Your task to perform on an android device: turn notification dots on Image 0: 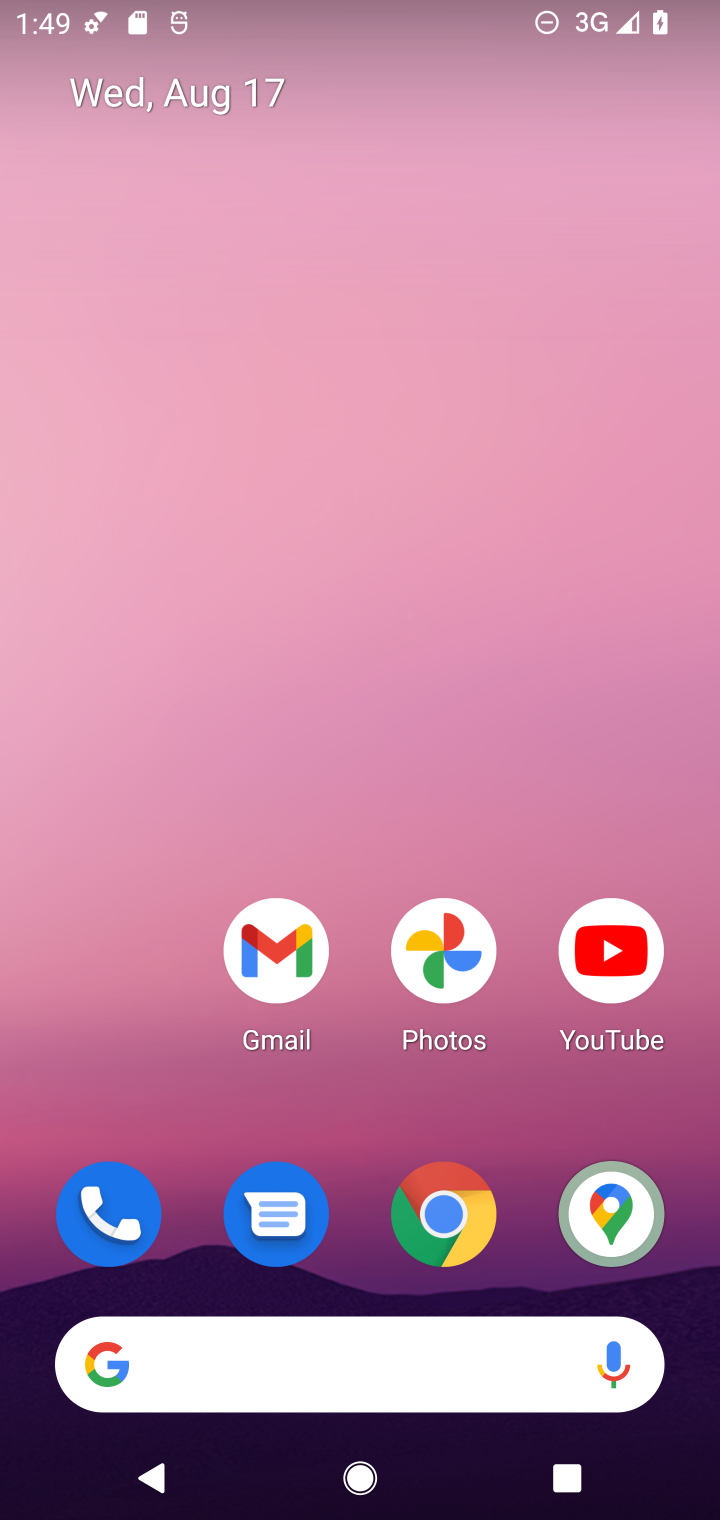
Step 0: drag from (359, 1279) to (312, 270)
Your task to perform on an android device: turn notification dots on Image 1: 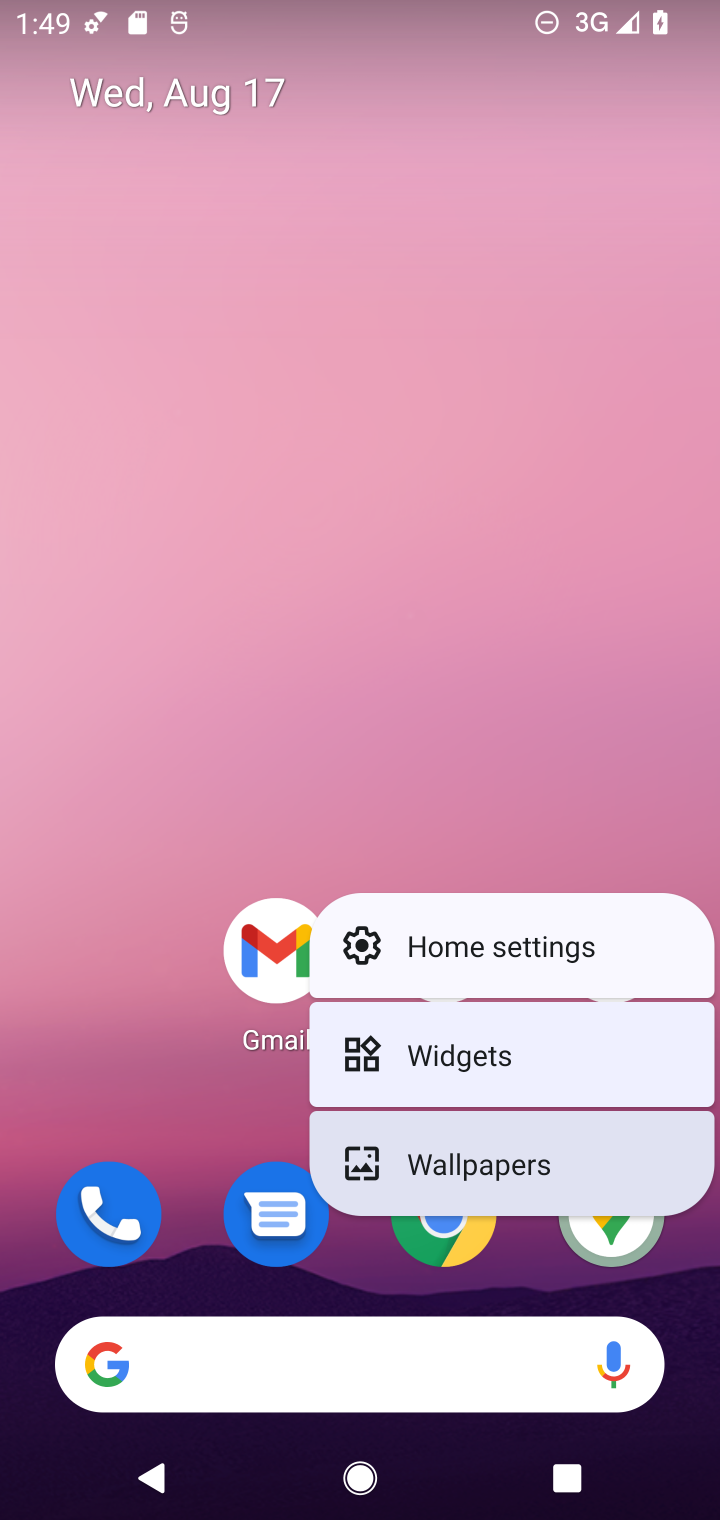
Step 1: click (384, 576)
Your task to perform on an android device: turn notification dots on Image 2: 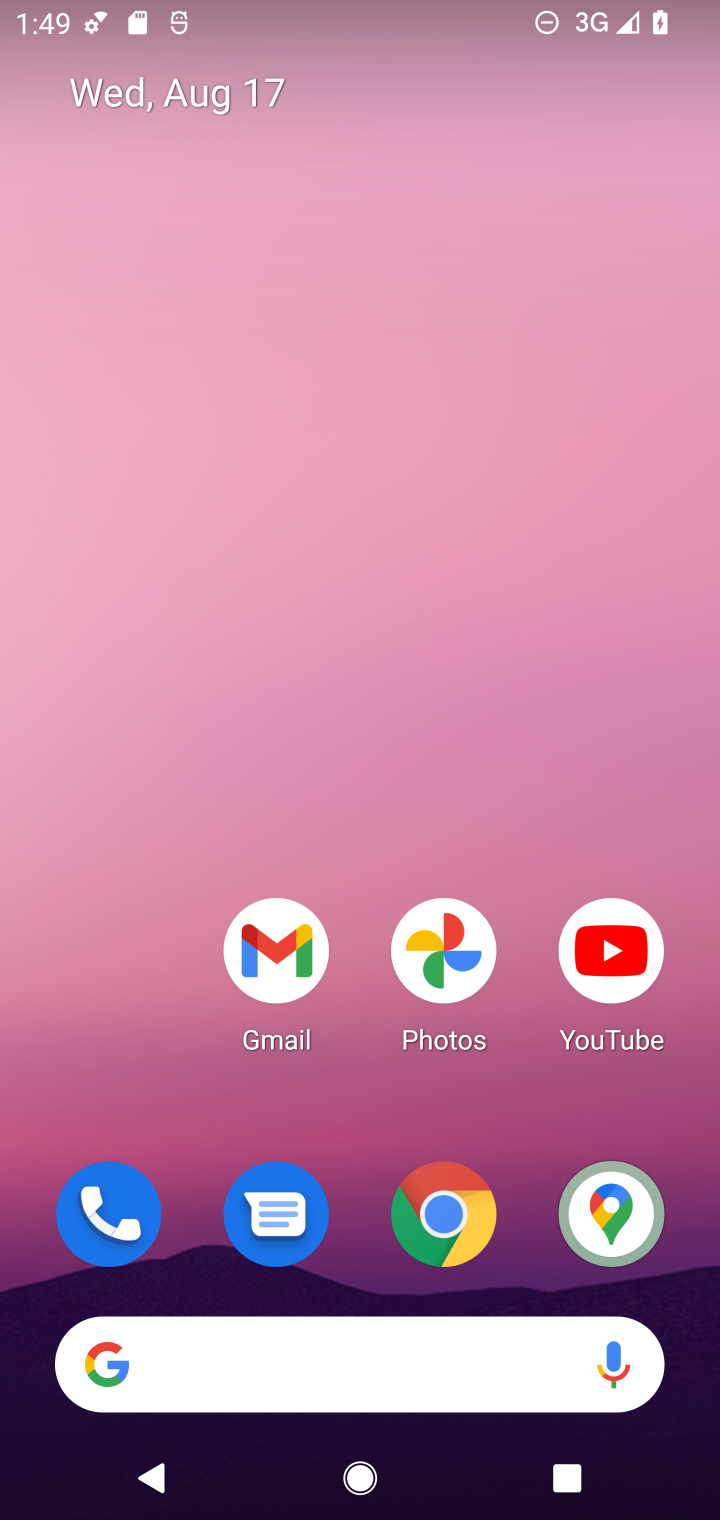
Step 2: drag from (360, 1152) to (235, 40)
Your task to perform on an android device: turn notification dots on Image 3: 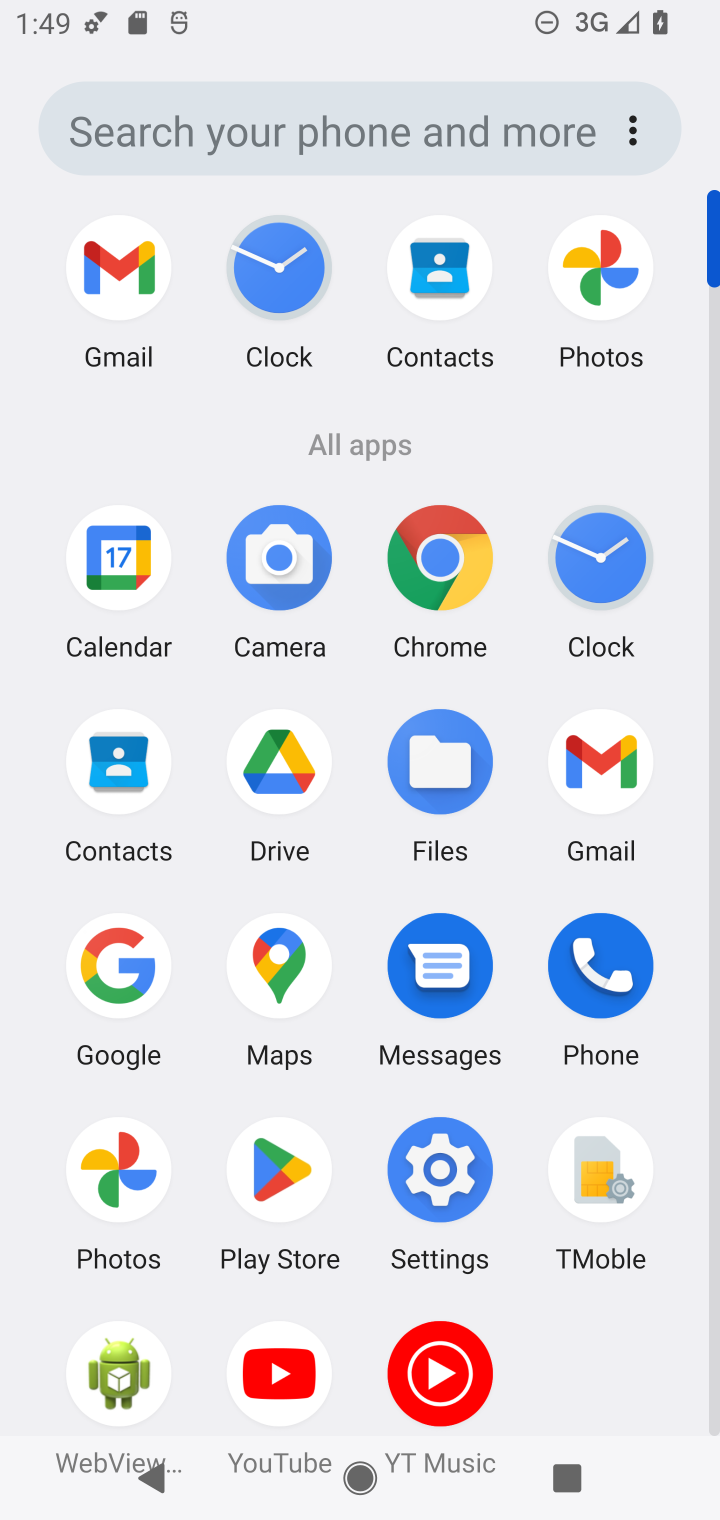
Step 3: click (444, 1176)
Your task to perform on an android device: turn notification dots on Image 4: 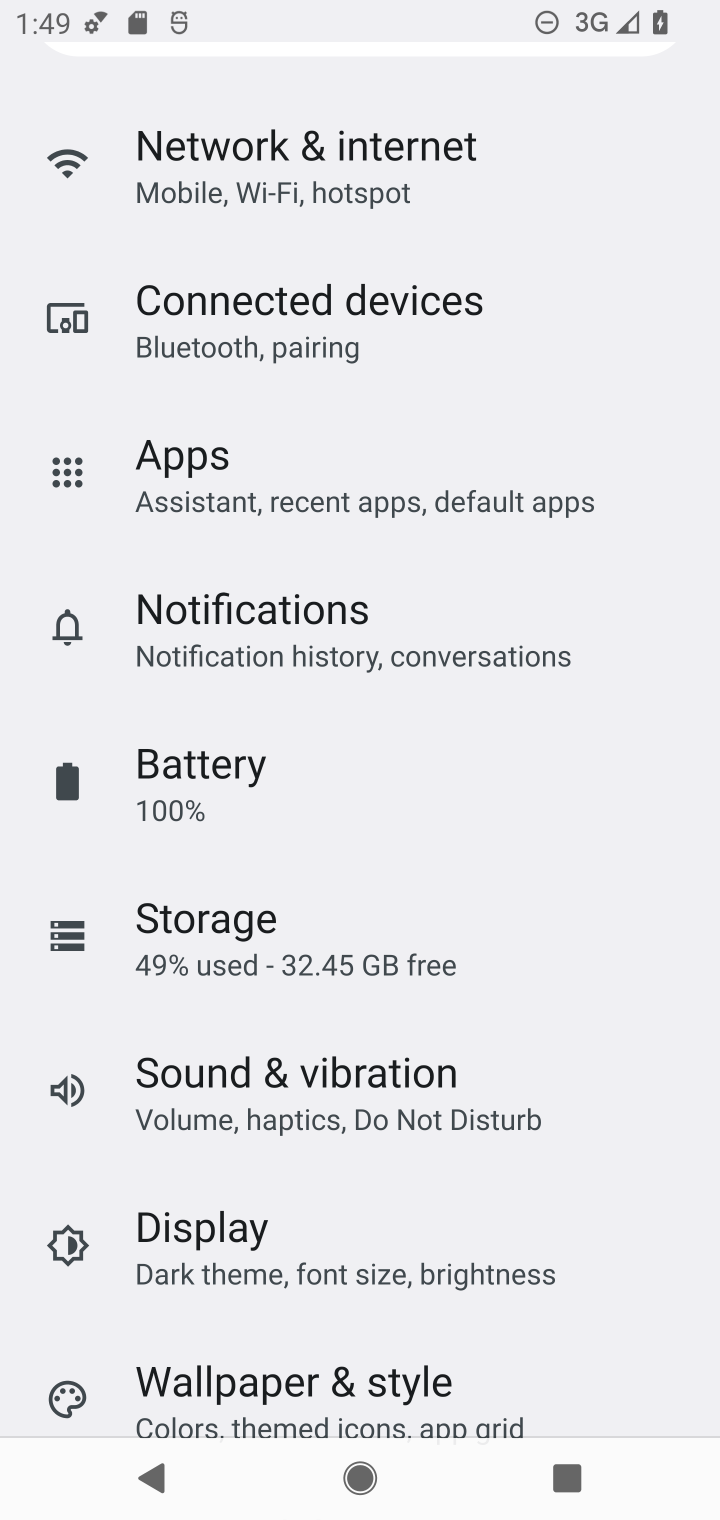
Step 4: drag from (385, 407) to (376, 817)
Your task to perform on an android device: turn notification dots on Image 5: 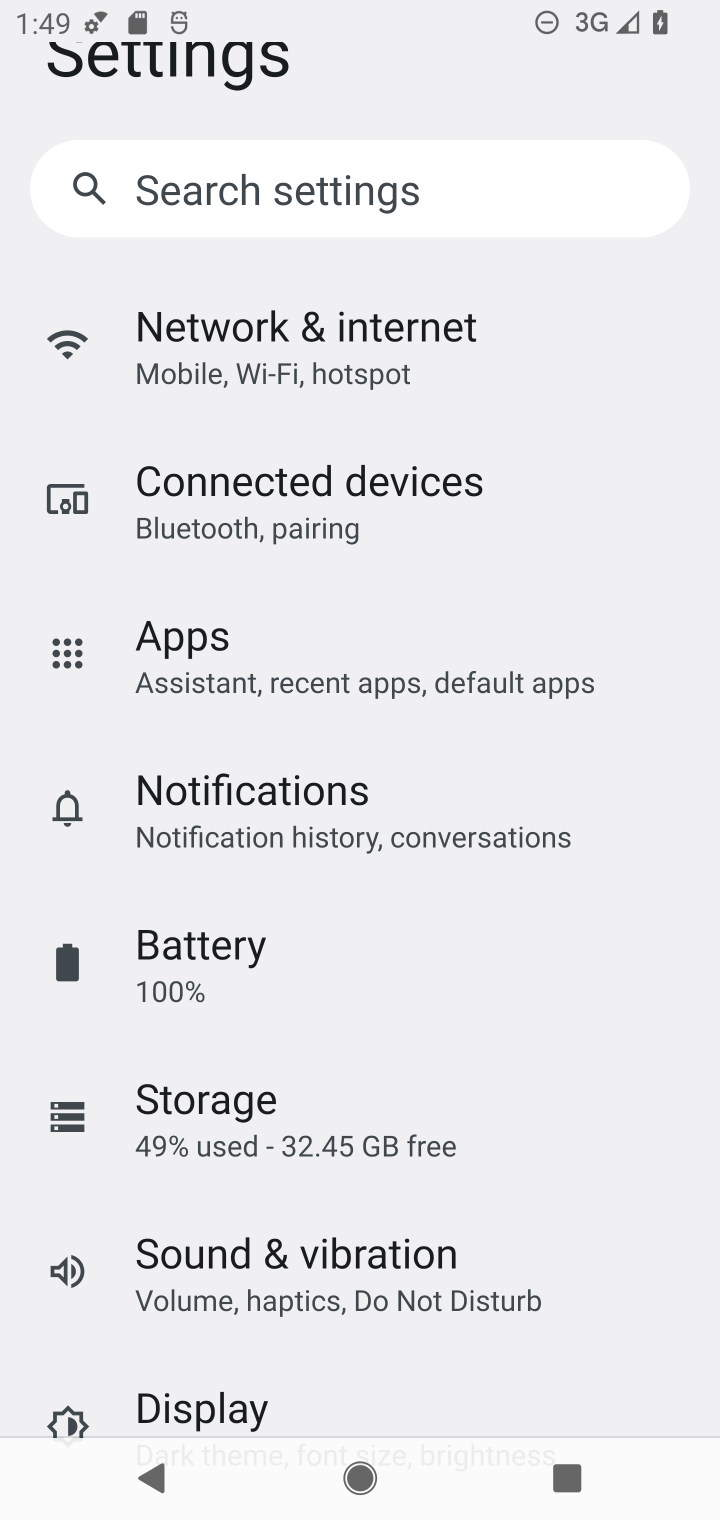
Step 5: click (256, 795)
Your task to perform on an android device: turn notification dots on Image 6: 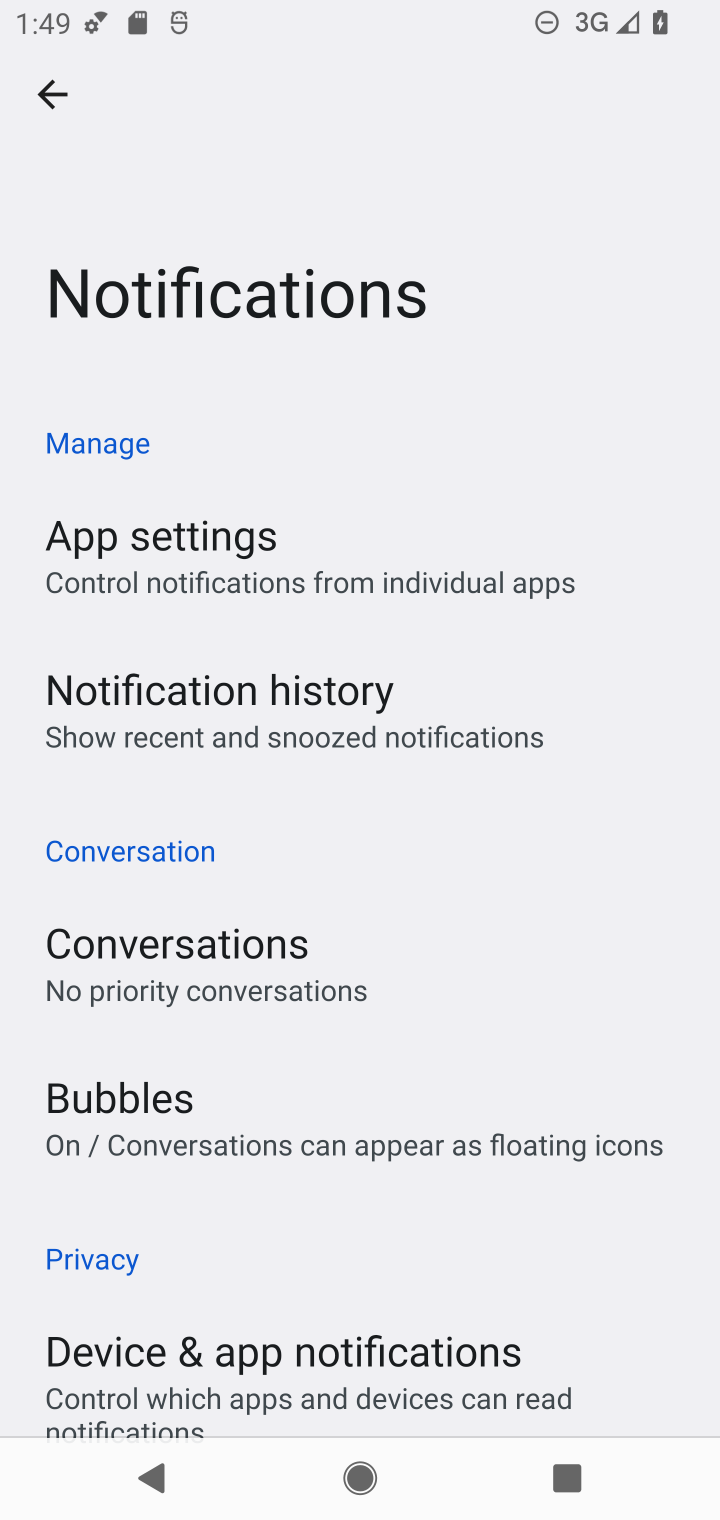
Step 6: task complete